Your task to perform on an android device: turn on translation in the chrome app Image 0: 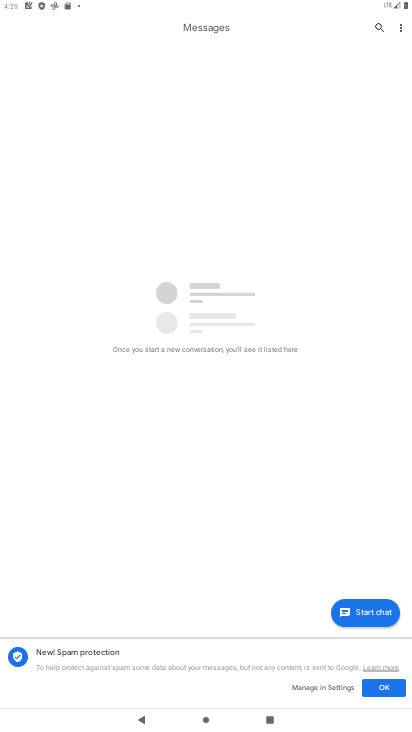
Step 0: press home button
Your task to perform on an android device: turn on translation in the chrome app Image 1: 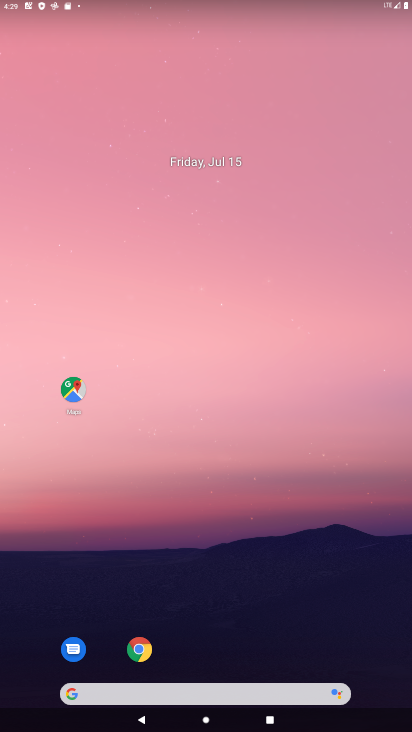
Step 1: drag from (284, 563) to (272, 210)
Your task to perform on an android device: turn on translation in the chrome app Image 2: 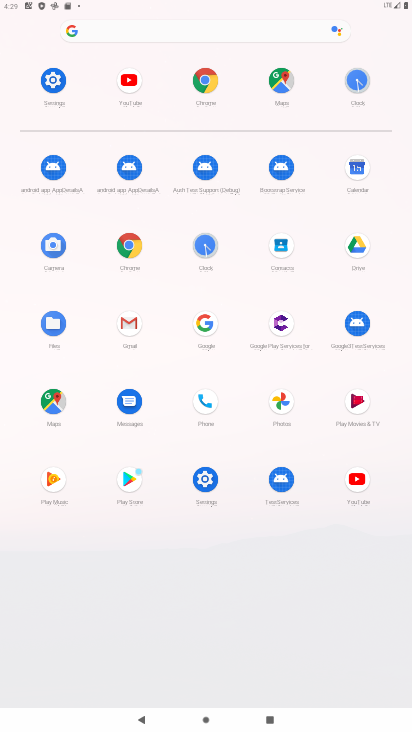
Step 2: click (129, 252)
Your task to perform on an android device: turn on translation in the chrome app Image 3: 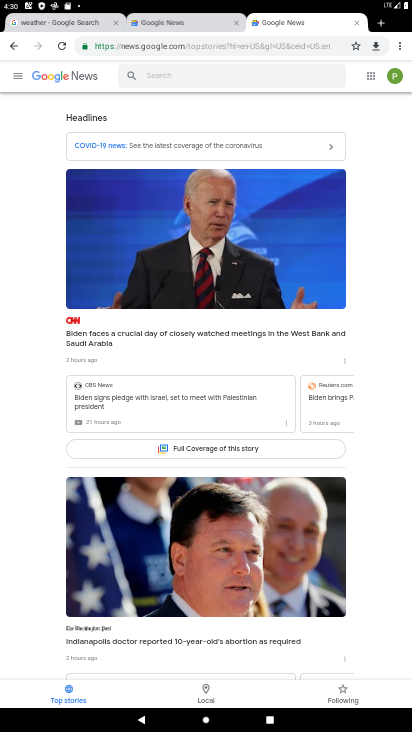
Step 3: drag from (401, 47) to (309, 307)
Your task to perform on an android device: turn on translation in the chrome app Image 4: 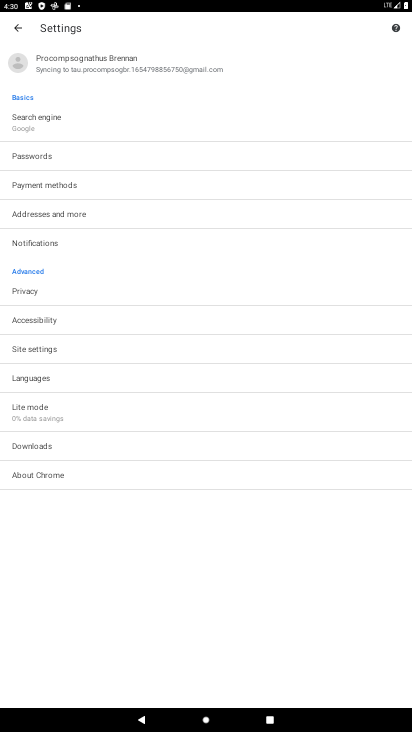
Step 4: click (42, 377)
Your task to perform on an android device: turn on translation in the chrome app Image 5: 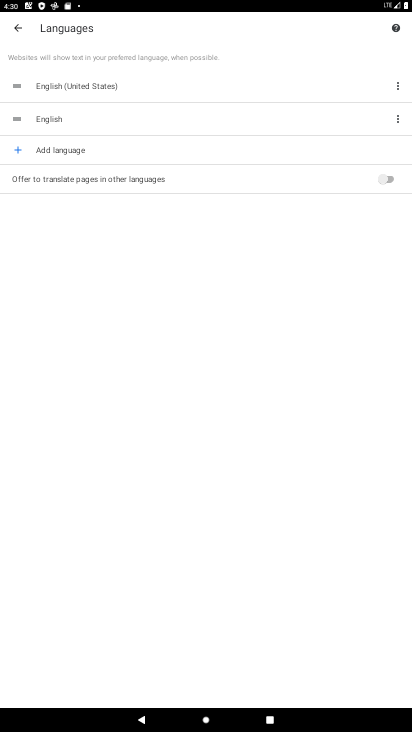
Step 5: click (364, 182)
Your task to perform on an android device: turn on translation in the chrome app Image 6: 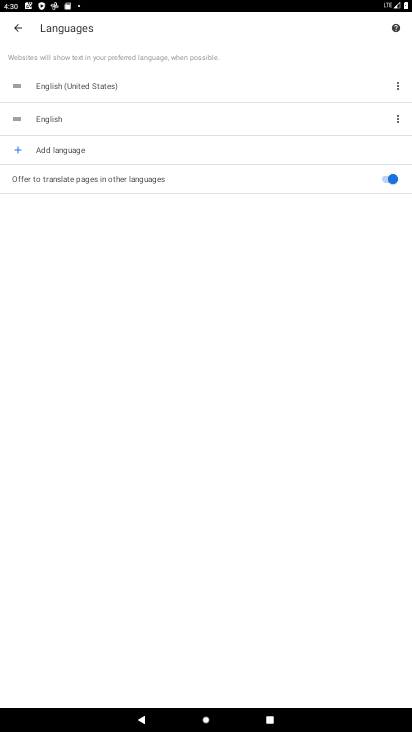
Step 6: task complete